Your task to perform on an android device: move an email to a new category in the gmail app Image 0: 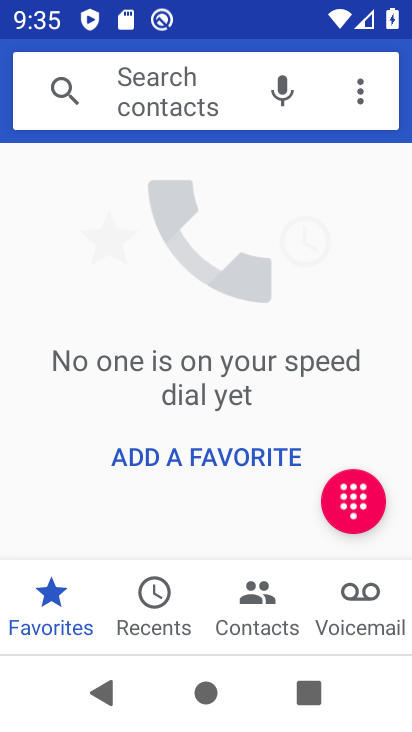
Step 0: press home button
Your task to perform on an android device: move an email to a new category in the gmail app Image 1: 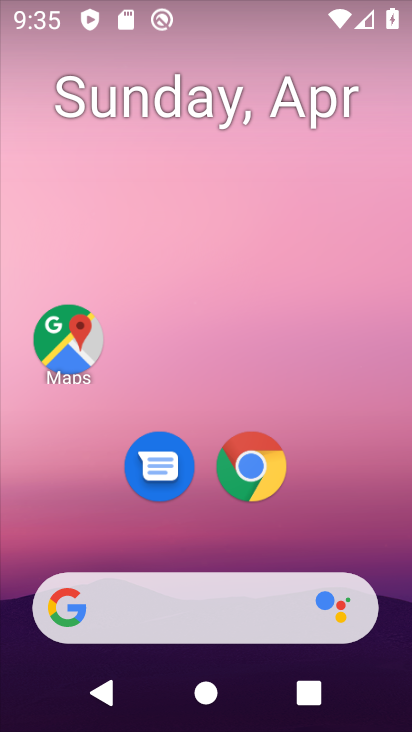
Step 1: drag from (225, 719) to (218, 124)
Your task to perform on an android device: move an email to a new category in the gmail app Image 2: 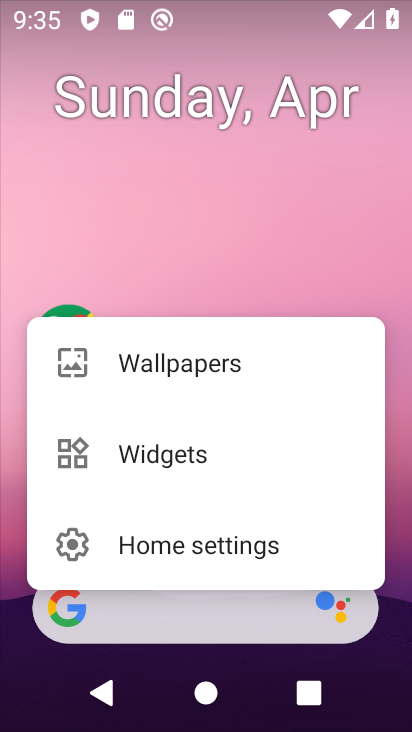
Step 2: click (219, 251)
Your task to perform on an android device: move an email to a new category in the gmail app Image 3: 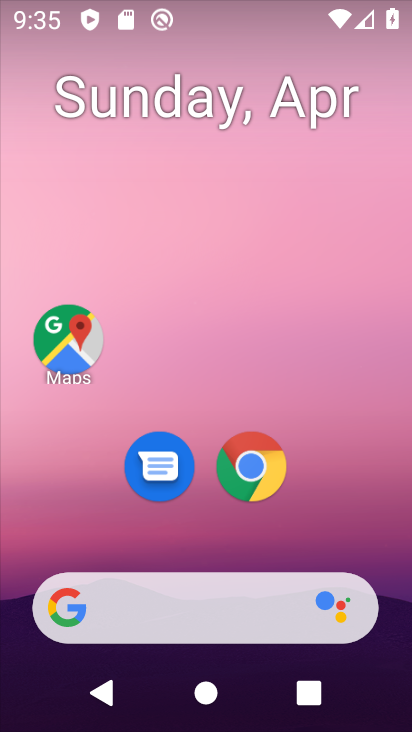
Step 3: drag from (239, 579) to (239, 180)
Your task to perform on an android device: move an email to a new category in the gmail app Image 4: 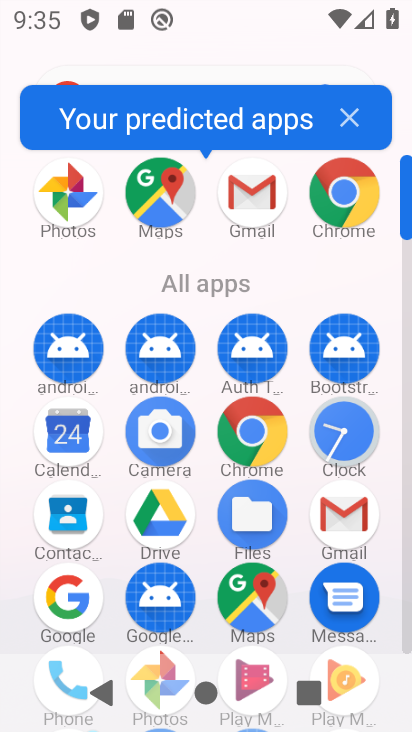
Step 4: click (245, 193)
Your task to perform on an android device: move an email to a new category in the gmail app Image 5: 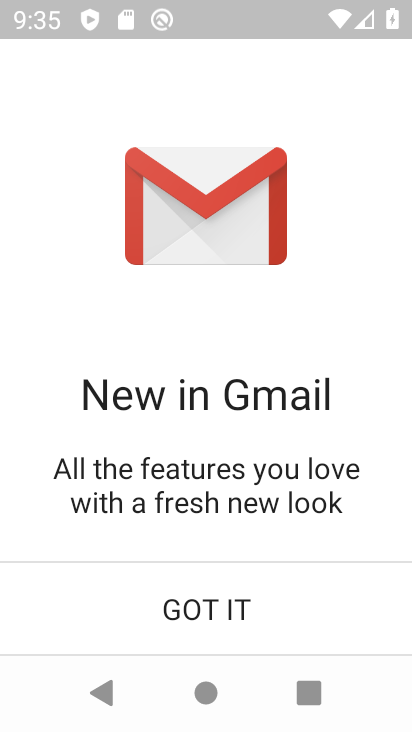
Step 5: click (197, 600)
Your task to perform on an android device: move an email to a new category in the gmail app Image 6: 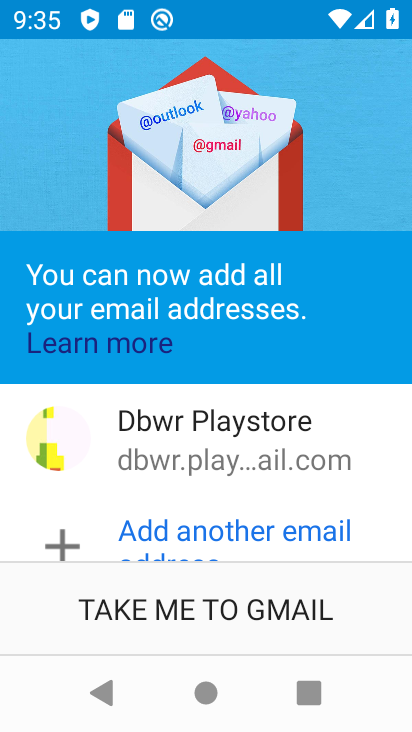
Step 6: click (198, 614)
Your task to perform on an android device: move an email to a new category in the gmail app Image 7: 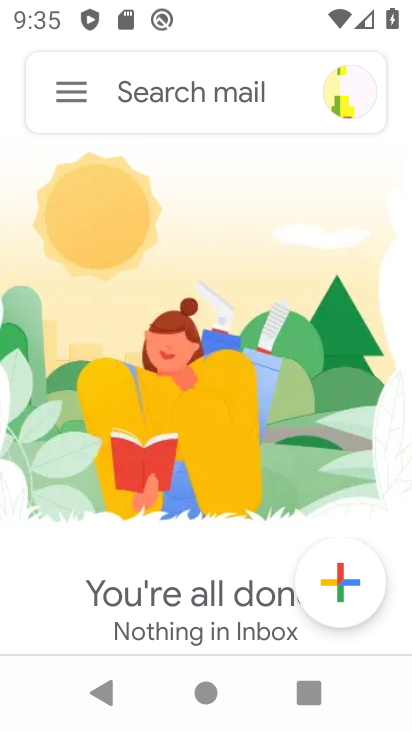
Step 7: task complete